Your task to perform on an android device: Open Google Image 0: 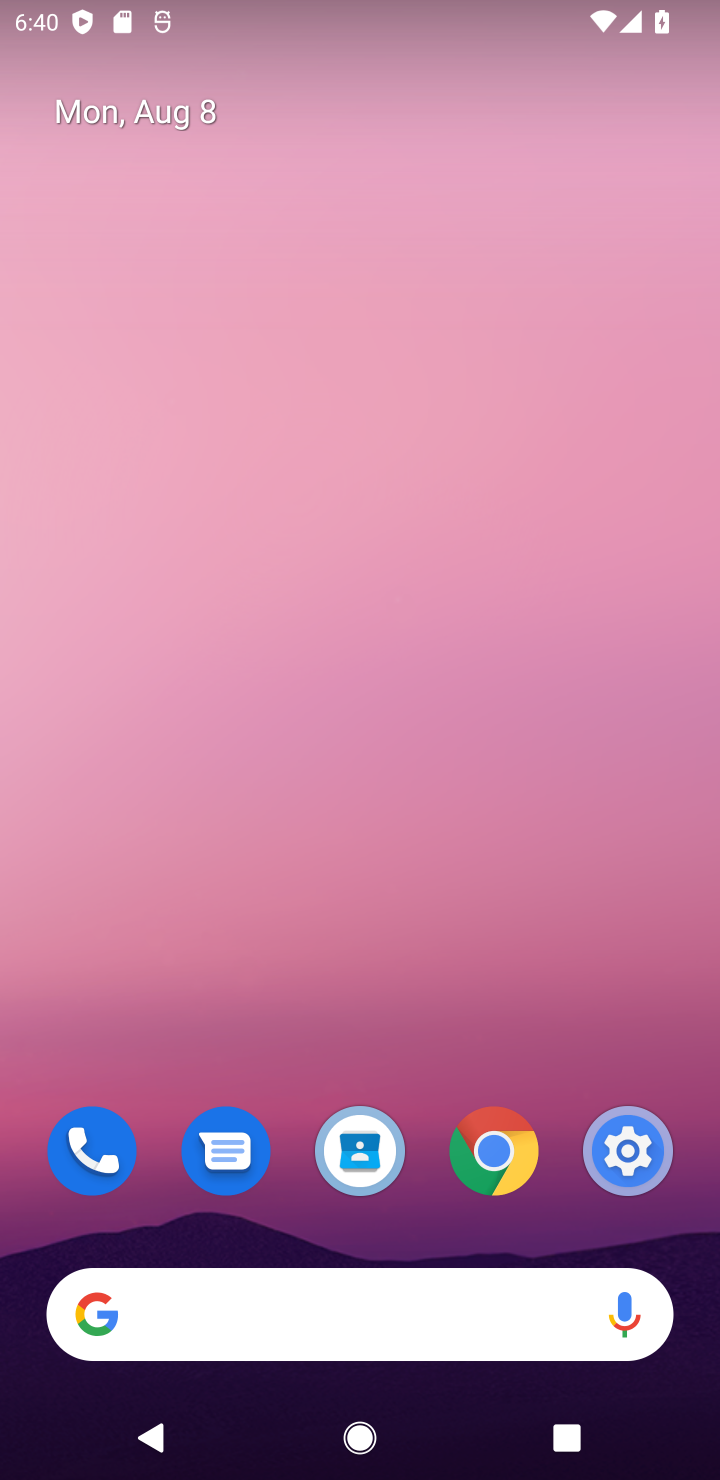
Step 0: drag from (521, 953) to (531, 4)
Your task to perform on an android device: Open Google Image 1: 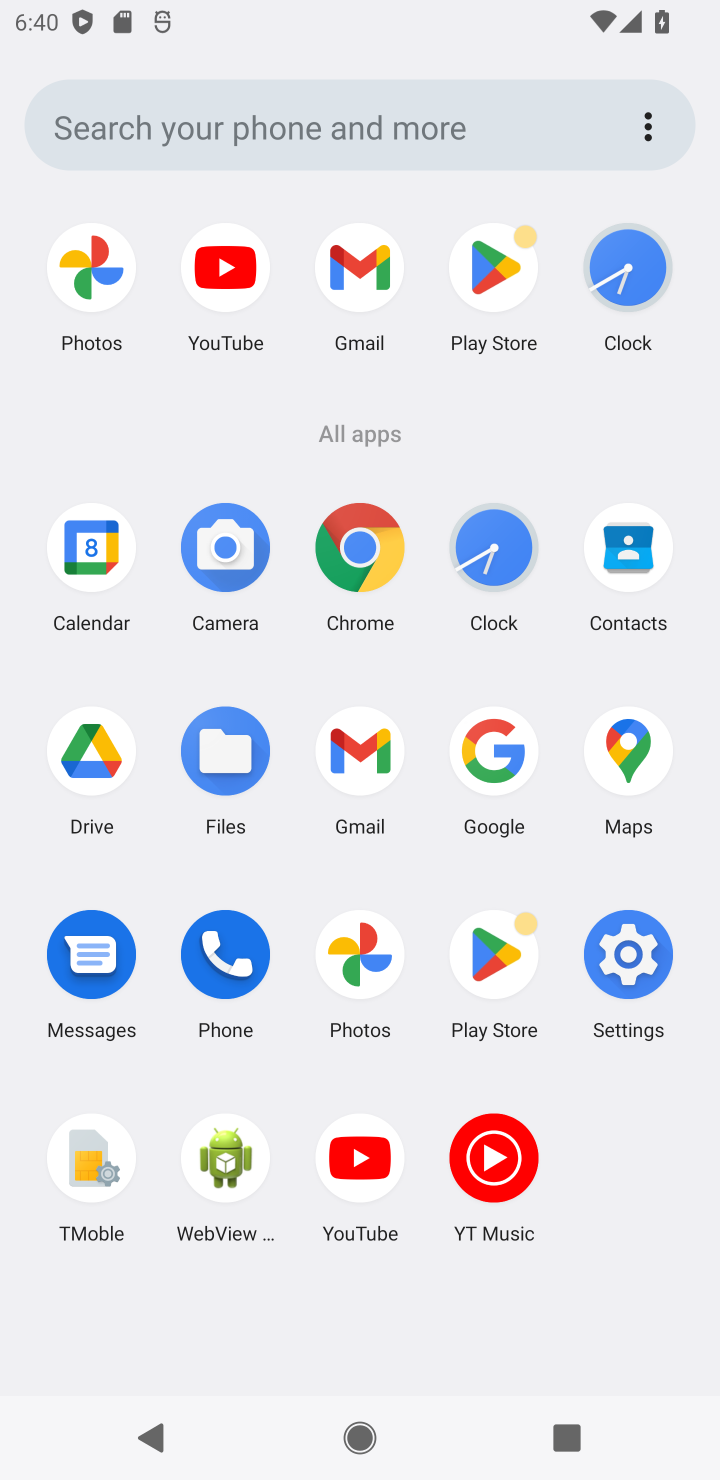
Step 1: click (496, 751)
Your task to perform on an android device: Open Google Image 2: 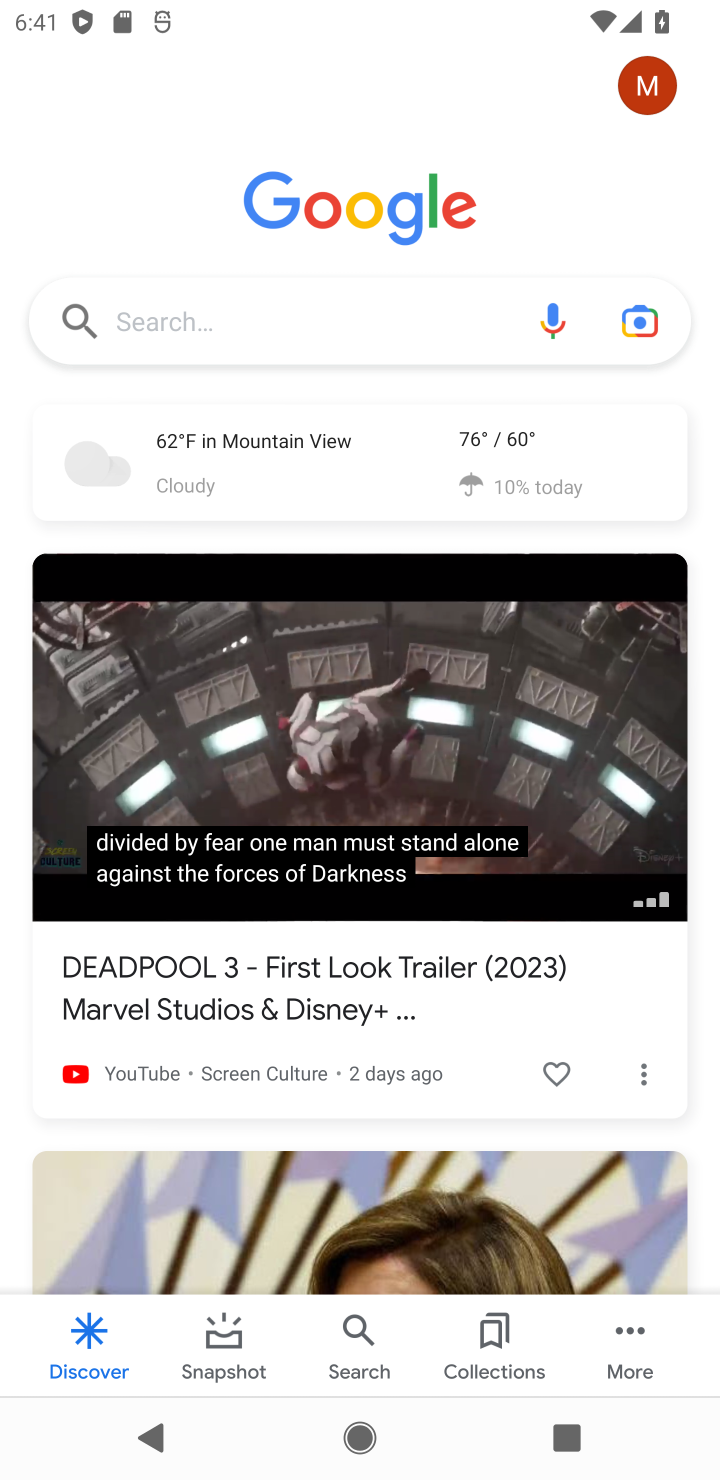
Step 2: task complete